Your task to perform on an android device: delete location history Image 0: 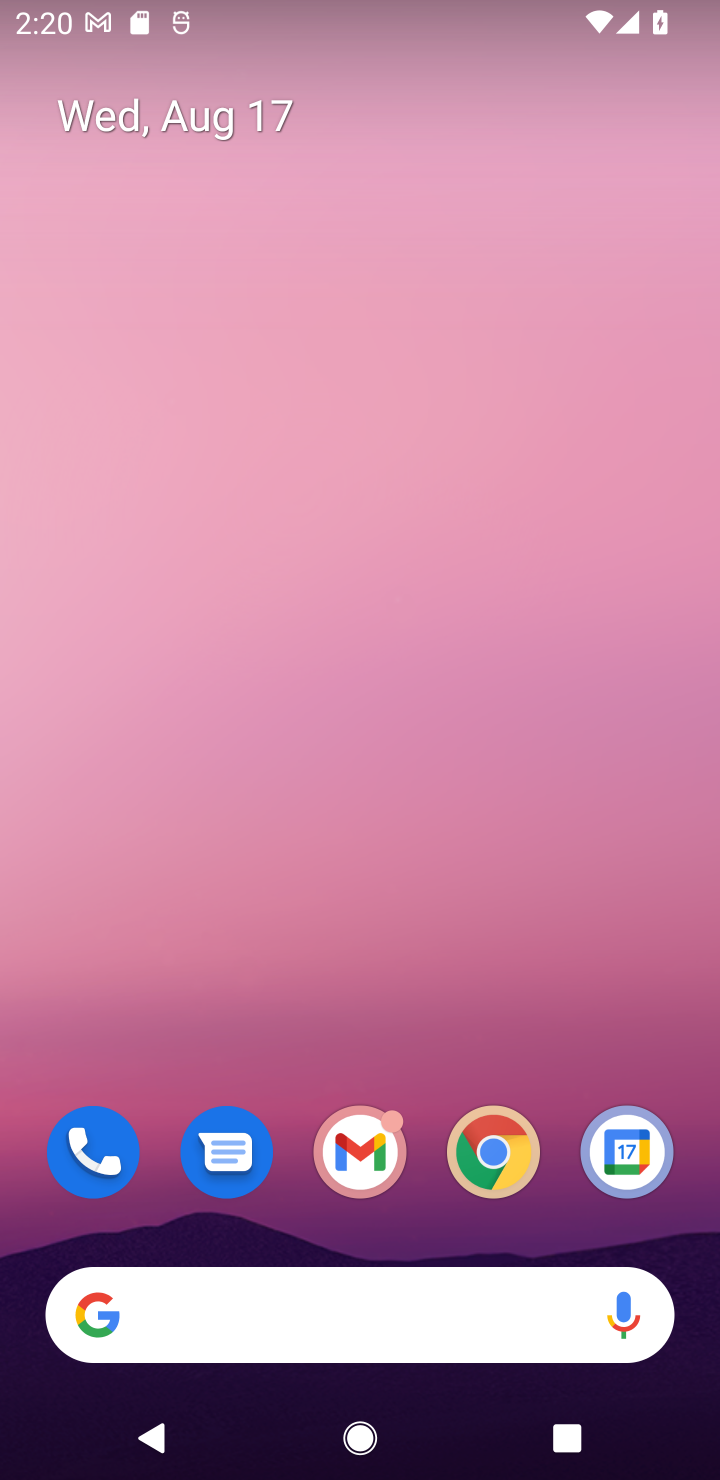
Step 0: drag from (540, 957) to (343, 25)
Your task to perform on an android device: delete location history Image 1: 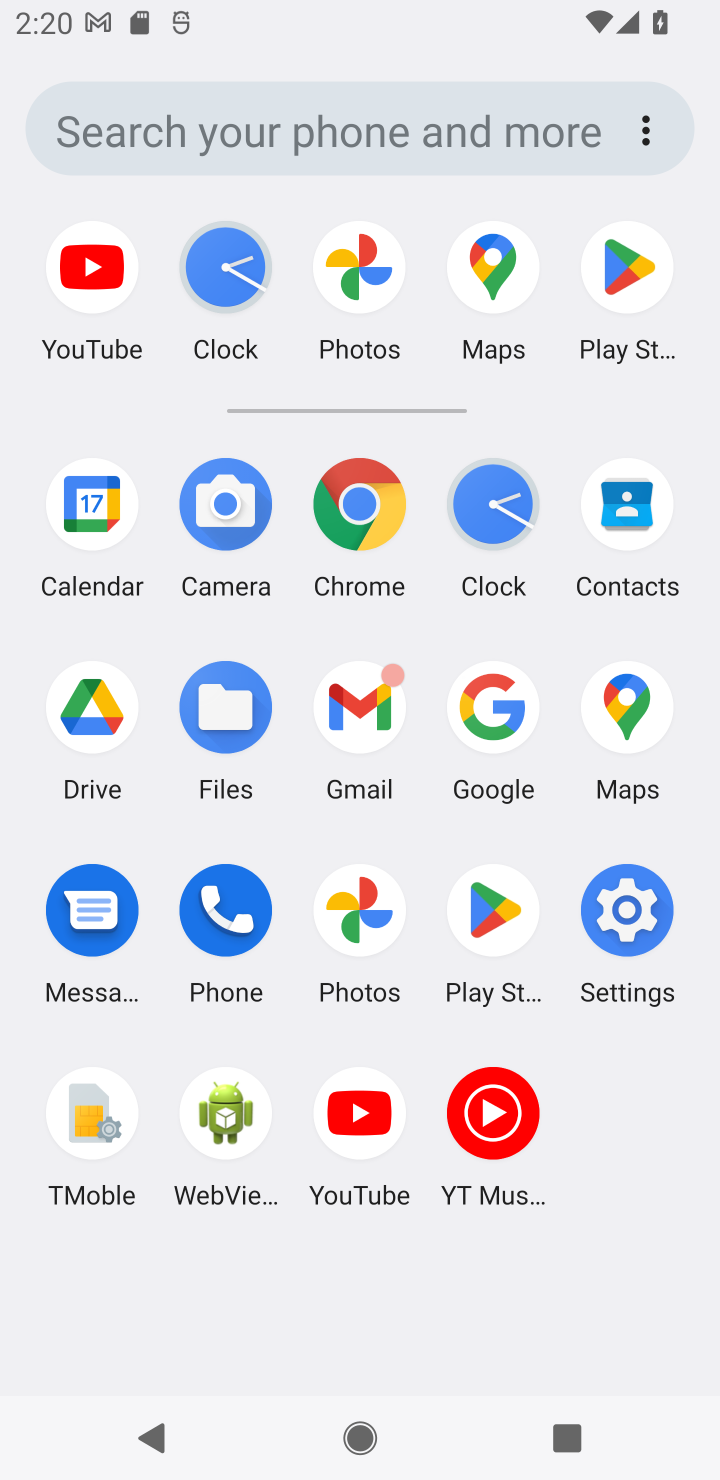
Step 1: click (596, 935)
Your task to perform on an android device: delete location history Image 2: 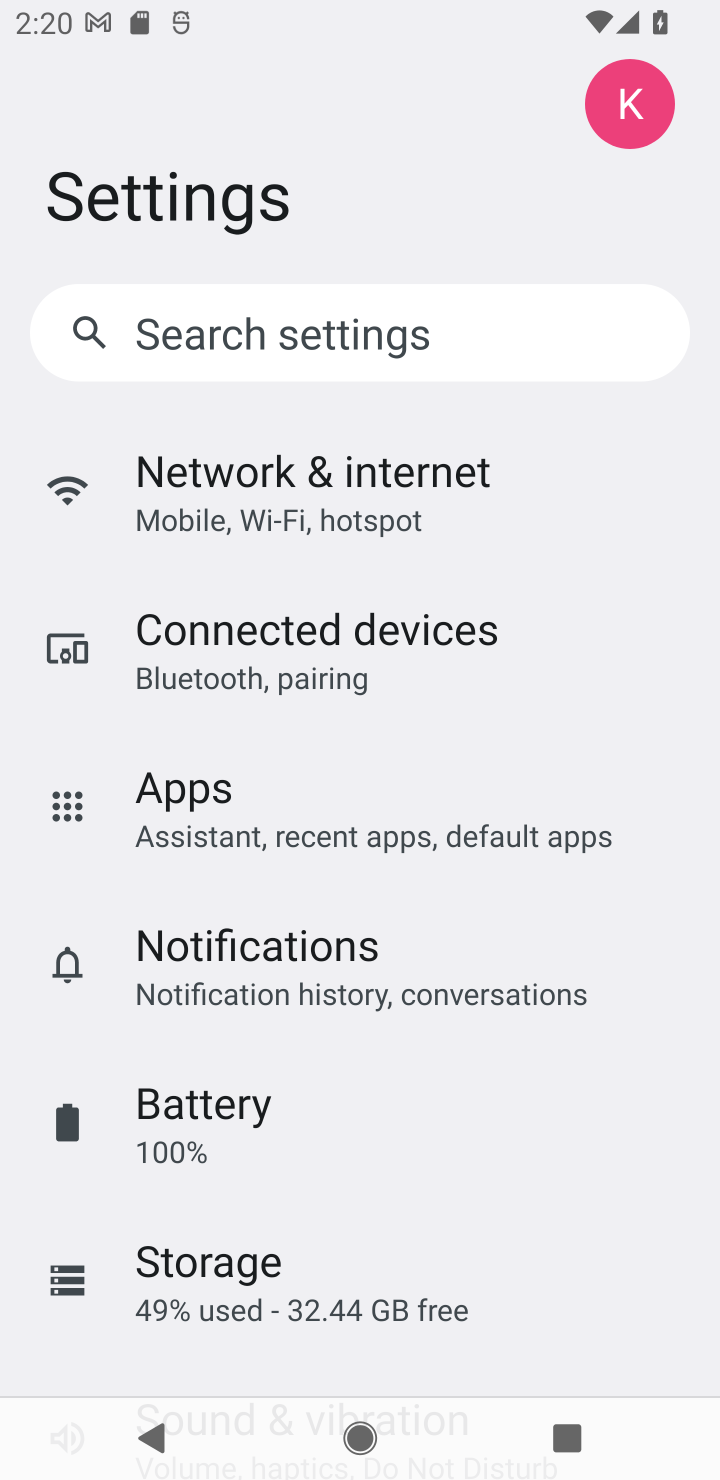
Step 2: drag from (381, 1268) to (322, 202)
Your task to perform on an android device: delete location history Image 3: 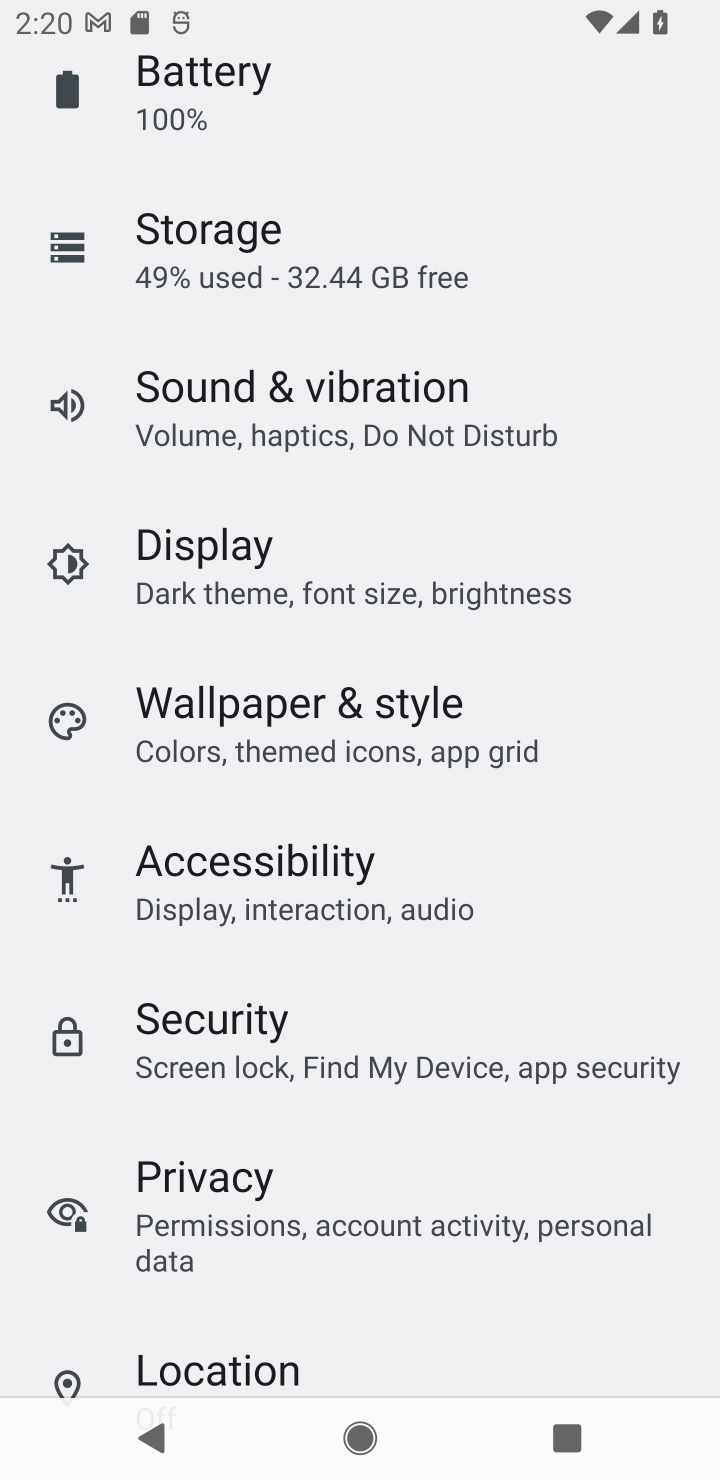
Step 3: click (254, 1363)
Your task to perform on an android device: delete location history Image 4: 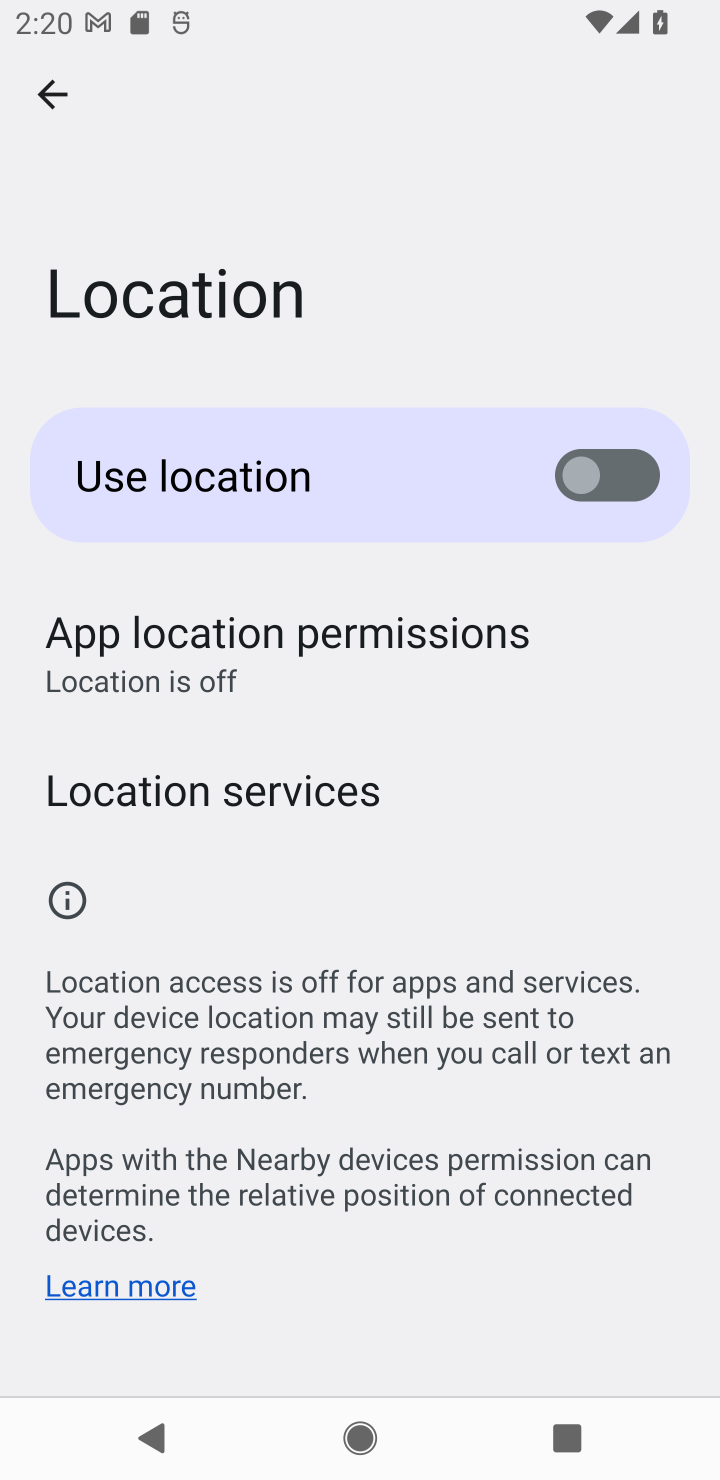
Step 4: click (246, 809)
Your task to perform on an android device: delete location history Image 5: 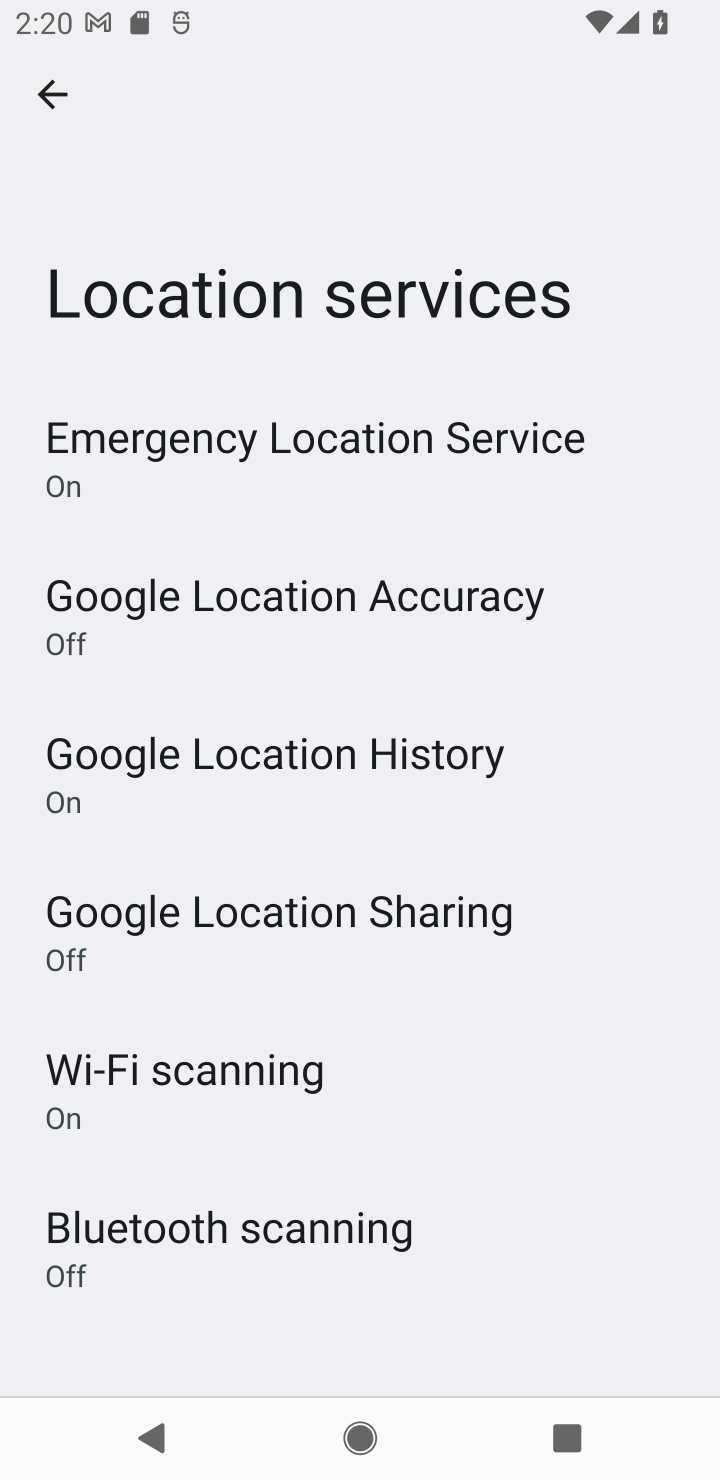
Step 5: click (362, 821)
Your task to perform on an android device: delete location history Image 6: 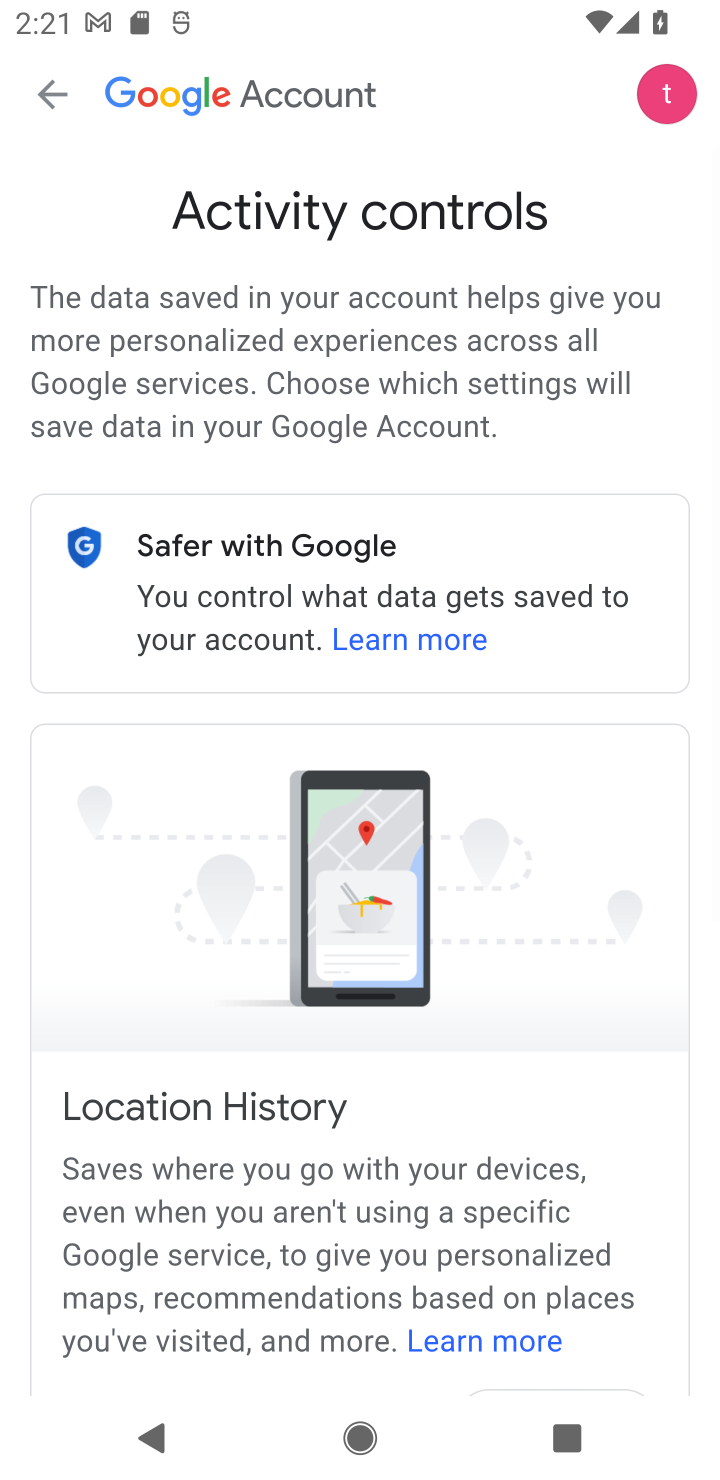
Step 6: task complete